Your task to perform on an android device: check storage Image 0: 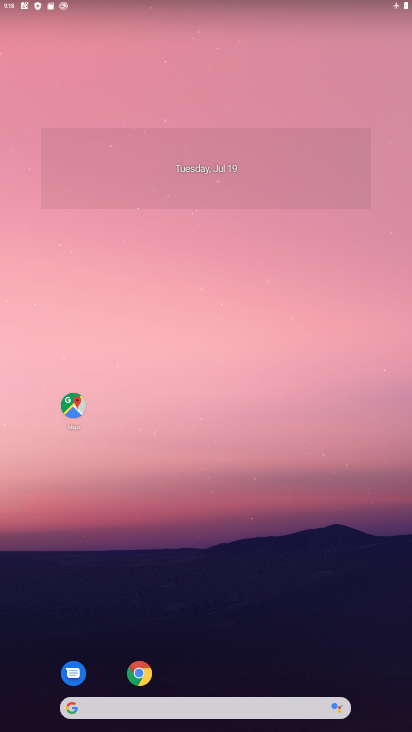
Step 0: drag from (217, 653) to (224, 181)
Your task to perform on an android device: check storage Image 1: 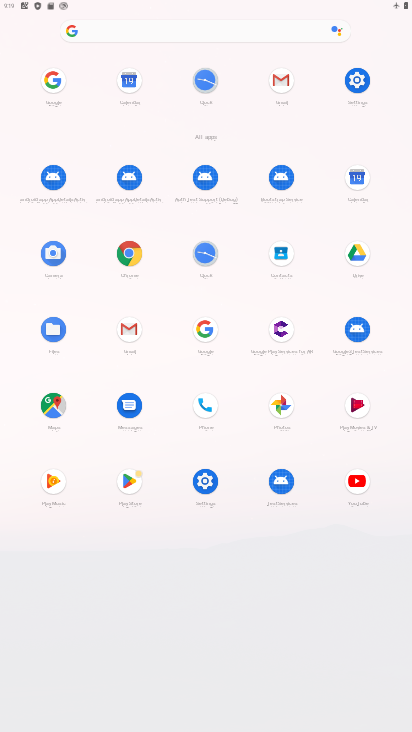
Step 1: click (346, 75)
Your task to perform on an android device: check storage Image 2: 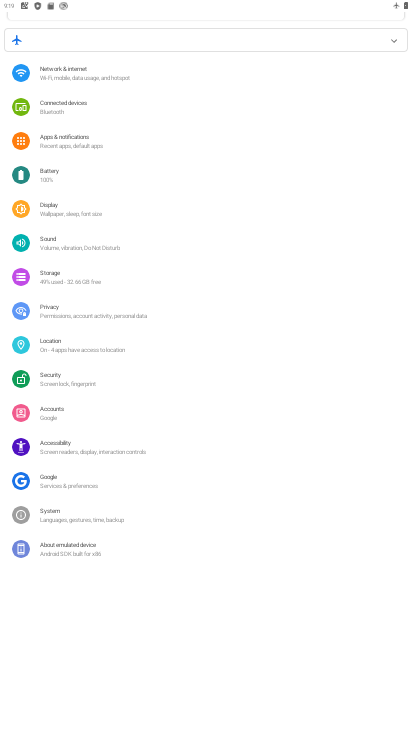
Step 2: click (57, 265)
Your task to perform on an android device: check storage Image 3: 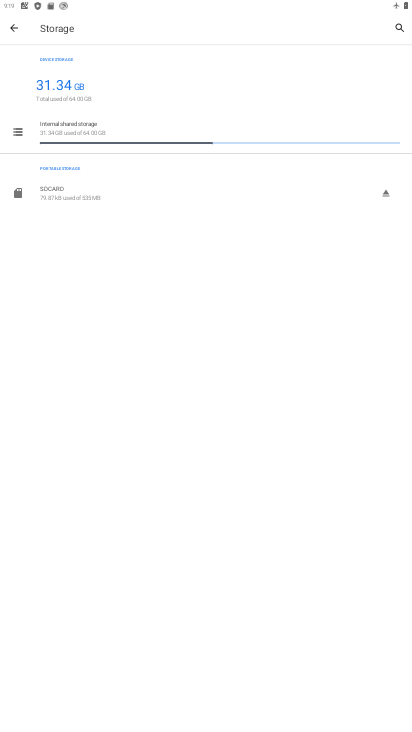
Step 3: task complete